Your task to perform on an android device: Open a new Chrome incognito window Image 0: 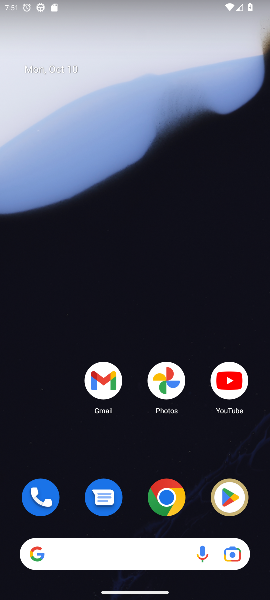
Step 0: drag from (156, 404) to (176, 225)
Your task to perform on an android device: Open a new Chrome incognito window Image 1: 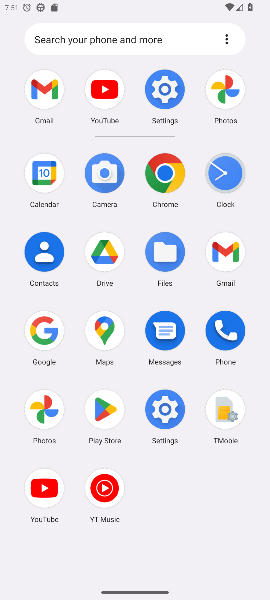
Step 1: click (156, 165)
Your task to perform on an android device: Open a new Chrome incognito window Image 2: 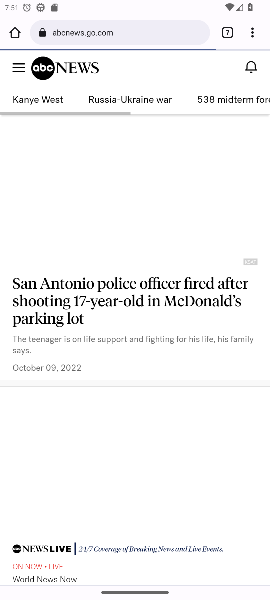
Step 2: click (250, 33)
Your task to perform on an android device: Open a new Chrome incognito window Image 3: 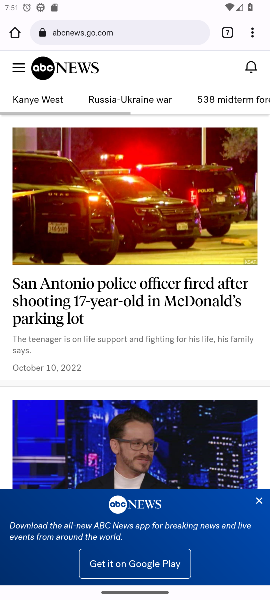
Step 3: click (250, 33)
Your task to perform on an android device: Open a new Chrome incognito window Image 4: 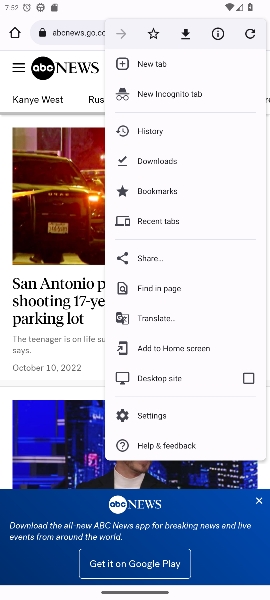
Step 4: click (131, 56)
Your task to perform on an android device: Open a new Chrome incognito window Image 5: 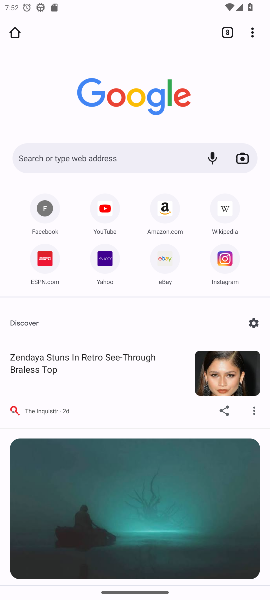
Step 5: task complete